Your task to perform on an android device: visit the assistant section in the google photos Image 0: 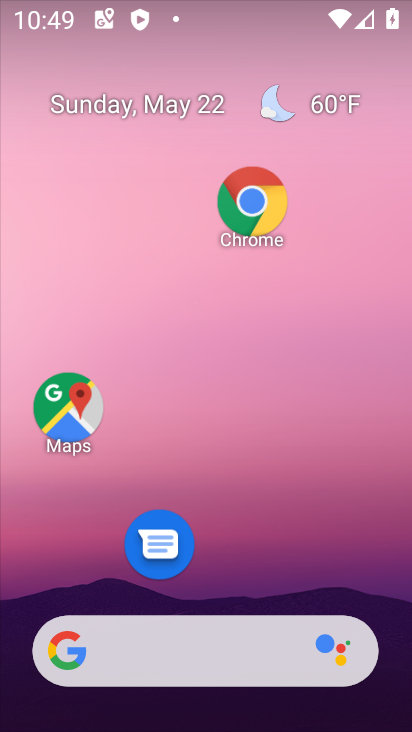
Step 0: drag from (259, 545) to (285, 0)
Your task to perform on an android device: visit the assistant section in the google photos Image 1: 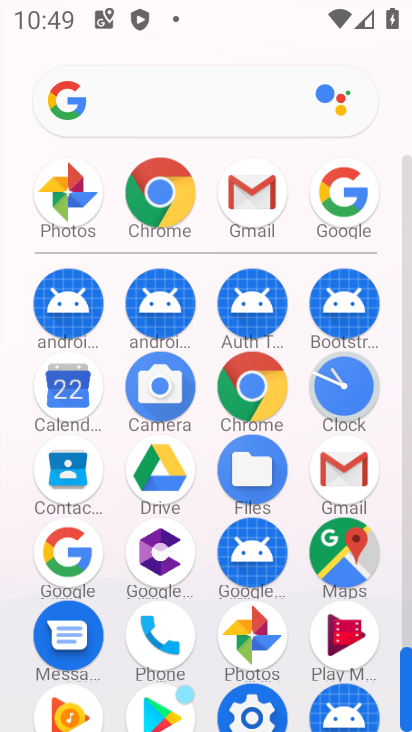
Step 1: click (249, 635)
Your task to perform on an android device: visit the assistant section in the google photos Image 2: 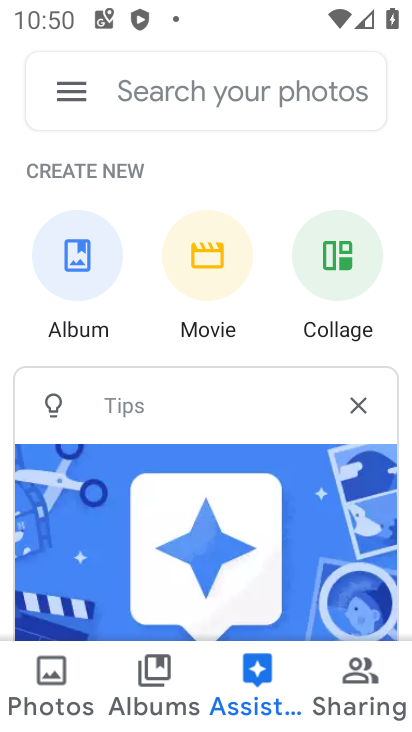
Step 2: task complete